Your task to perform on an android device: Search for "usb-c to usb-b" on ebay, select the first entry, and add it to the cart. Image 0: 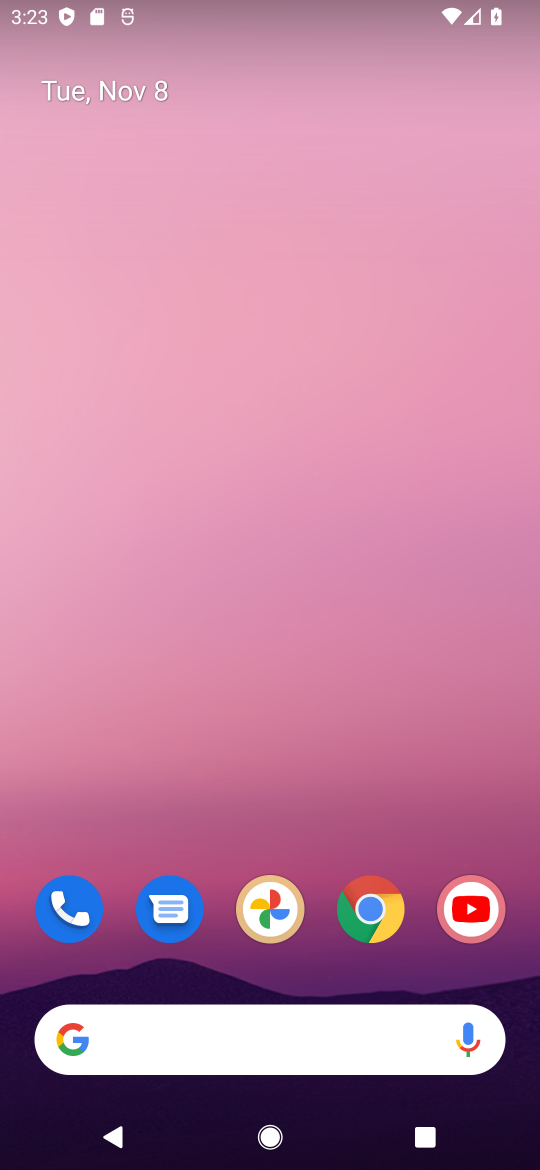
Step 0: click (376, 904)
Your task to perform on an android device: Search for "usb-c to usb-b" on ebay, select the first entry, and add it to the cart. Image 1: 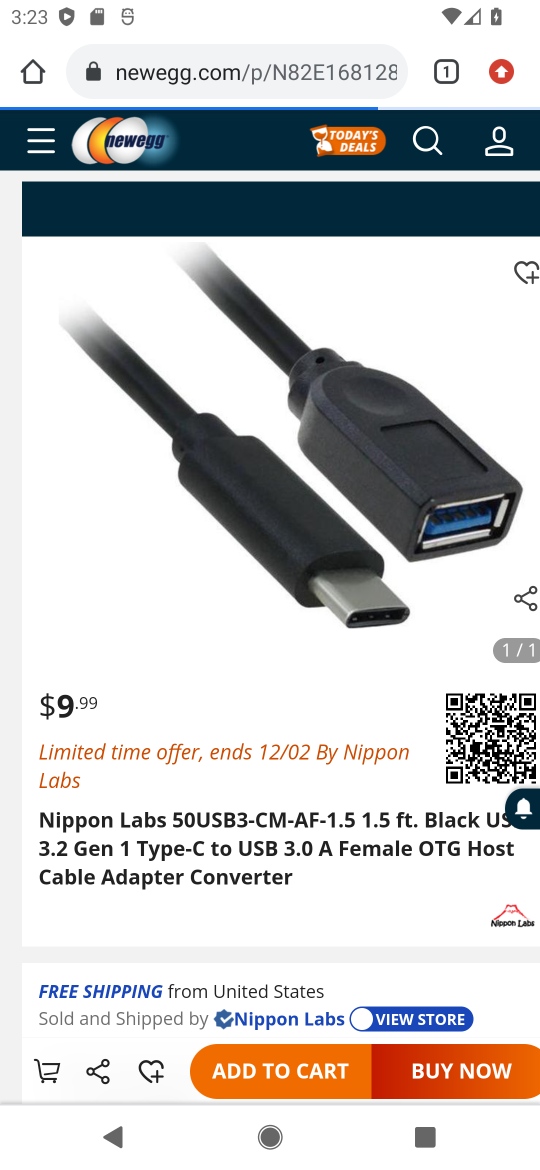
Step 1: click (362, 60)
Your task to perform on an android device: Search for "usb-c to usb-b" on ebay, select the first entry, and add it to the cart. Image 2: 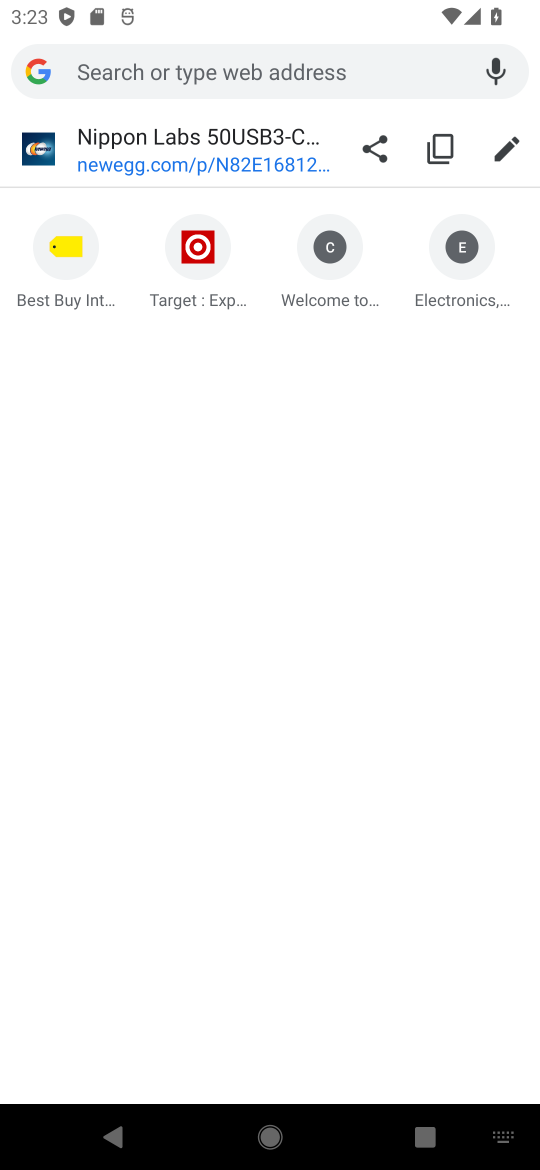
Step 2: type "ebay"
Your task to perform on an android device: Search for "usb-c to usb-b" on ebay, select the first entry, and add it to the cart. Image 3: 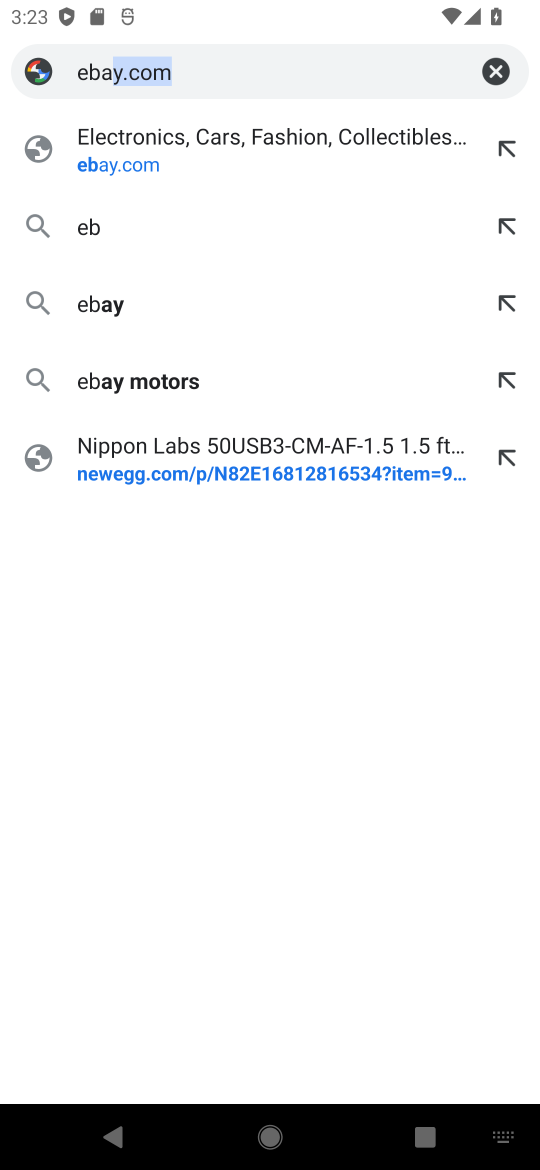
Step 3: press enter
Your task to perform on an android device: Search for "usb-c to usb-b" on ebay, select the first entry, and add it to the cart. Image 4: 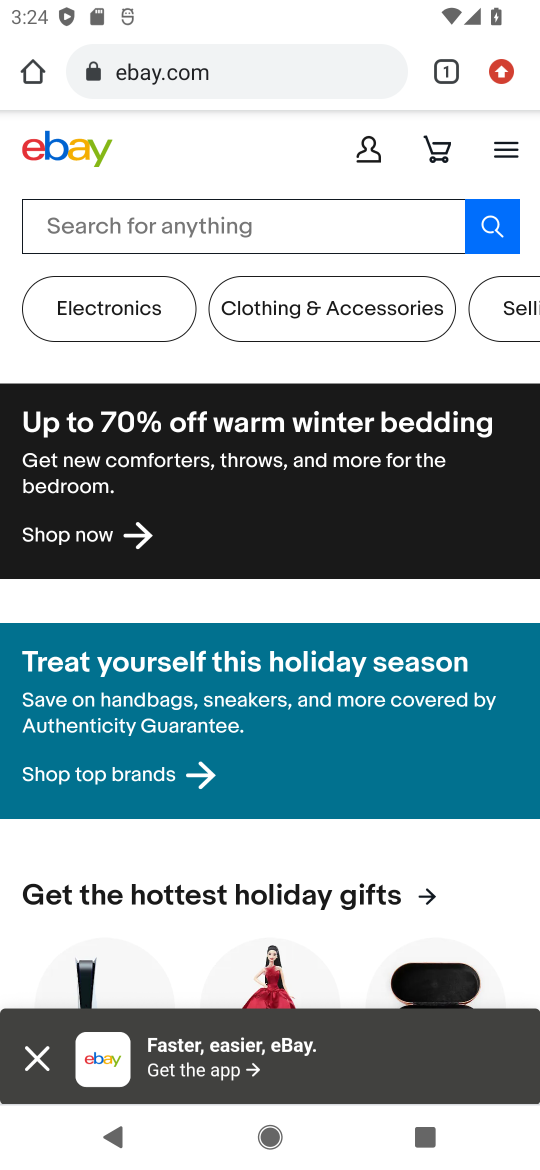
Step 4: click (151, 221)
Your task to perform on an android device: Search for "usb-c to usb-b" on ebay, select the first entry, and add it to the cart. Image 5: 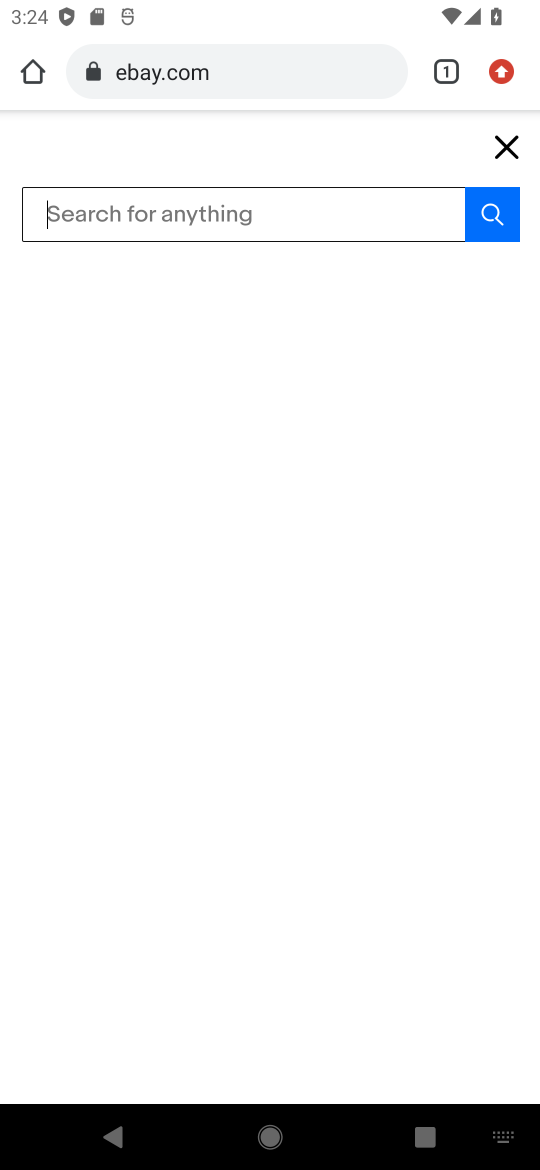
Step 5: type "usb-c to usb-b"
Your task to perform on an android device: Search for "usb-c to usb-b" on ebay, select the first entry, and add it to the cart. Image 6: 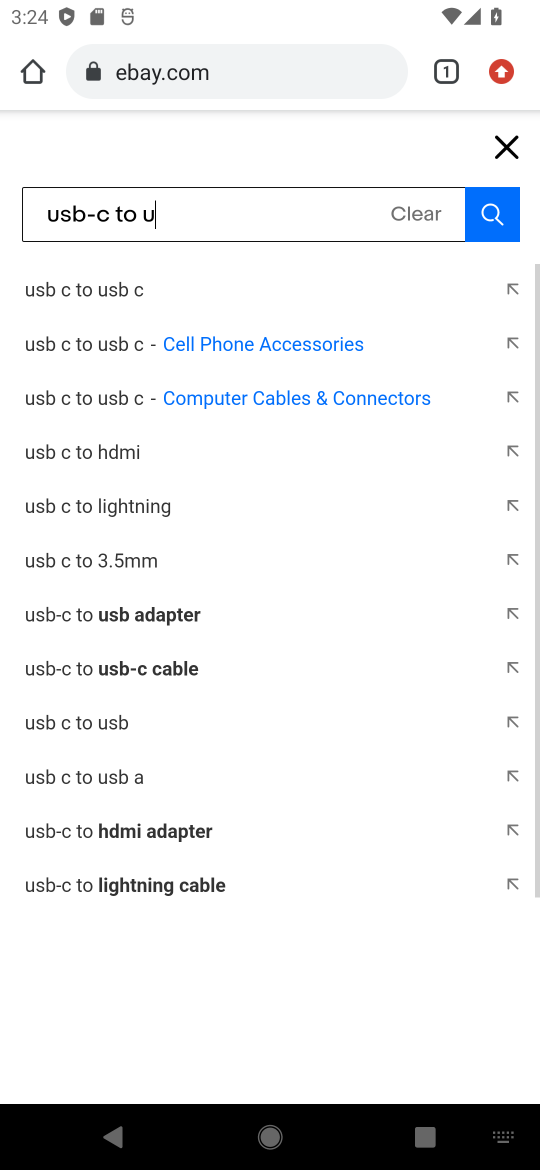
Step 6: press enter
Your task to perform on an android device: Search for "usb-c to usb-b" on ebay, select the first entry, and add it to the cart. Image 7: 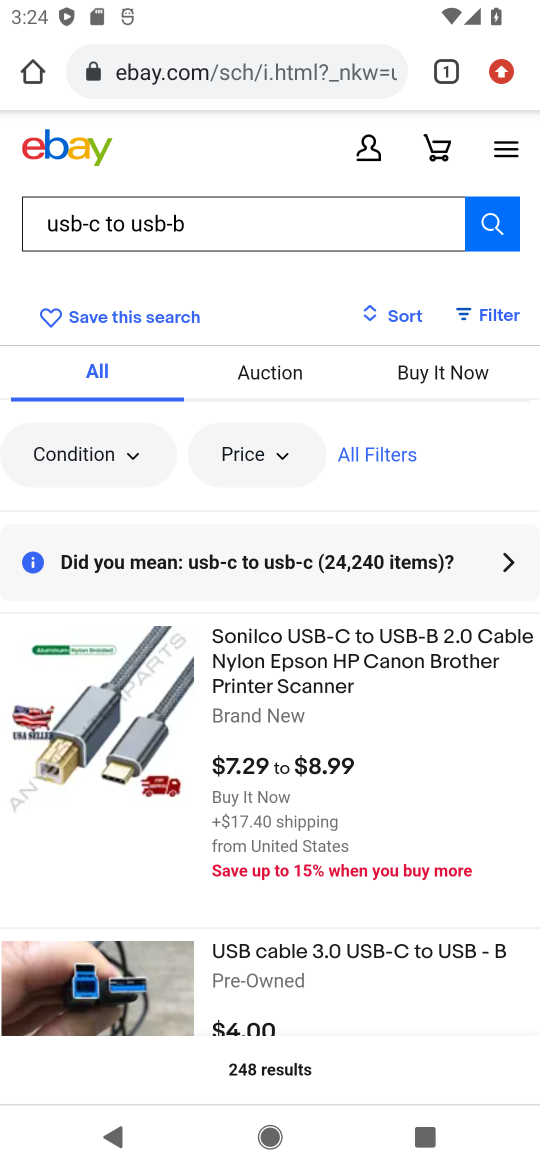
Step 7: click (275, 659)
Your task to perform on an android device: Search for "usb-c to usb-b" on ebay, select the first entry, and add it to the cart. Image 8: 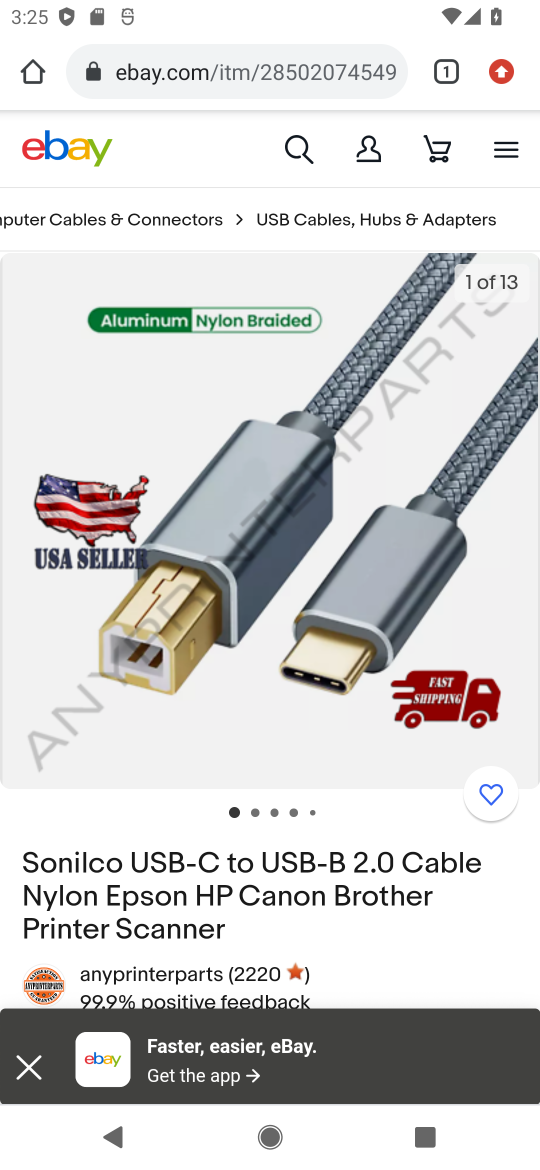
Step 8: drag from (204, 839) to (266, 353)
Your task to perform on an android device: Search for "usb-c to usb-b" on ebay, select the first entry, and add it to the cart. Image 9: 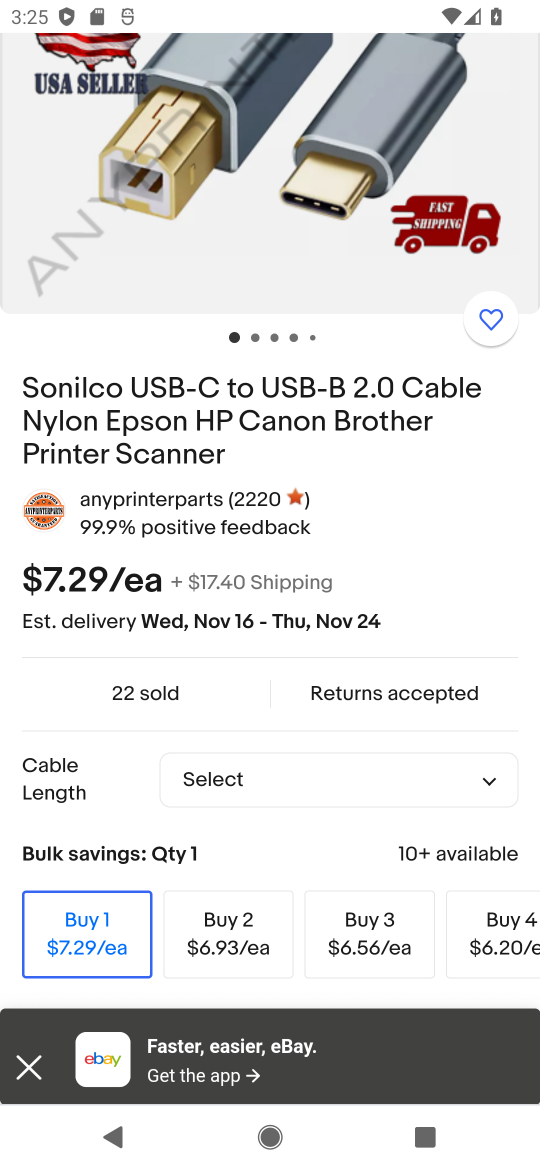
Step 9: drag from (230, 816) to (279, 192)
Your task to perform on an android device: Search for "usb-c to usb-b" on ebay, select the first entry, and add it to the cart. Image 10: 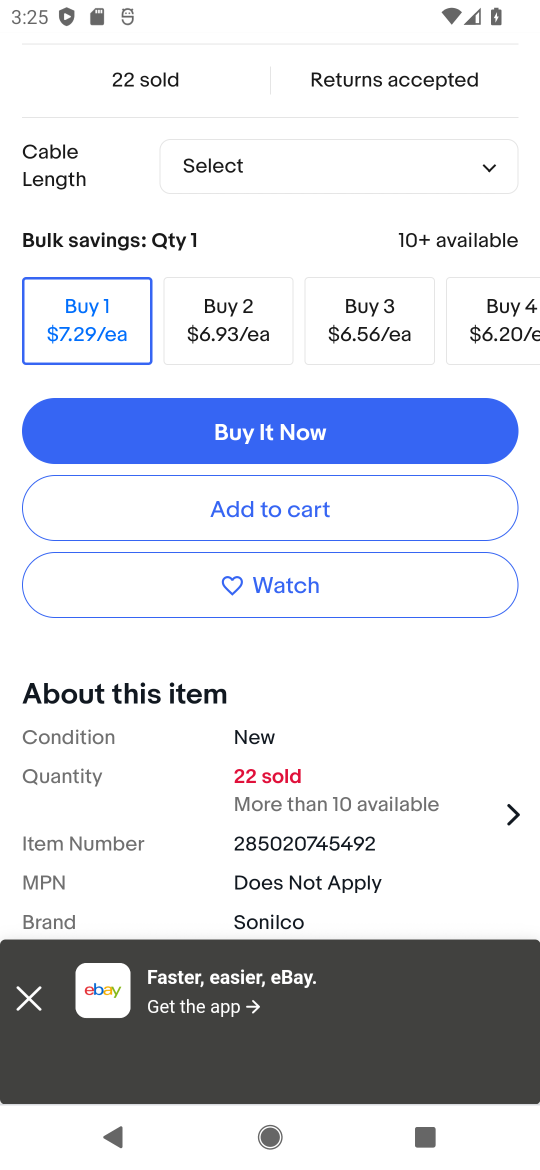
Step 10: click (251, 506)
Your task to perform on an android device: Search for "usb-c to usb-b" on ebay, select the first entry, and add it to the cart. Image 11: 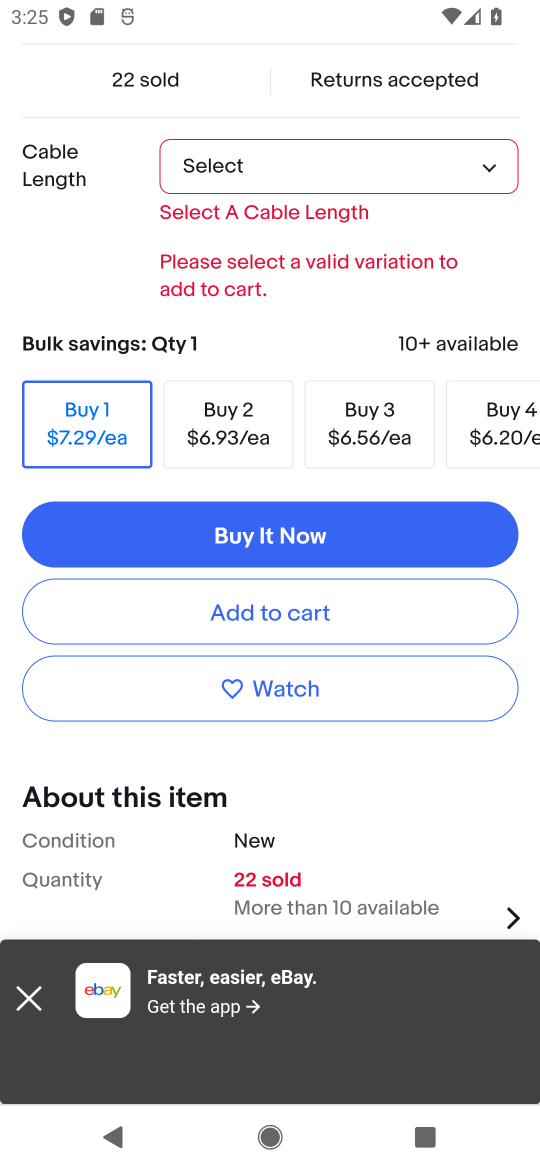
Step 11: click (482, 163)
Your task to perform on an android device: Search for "usb-c to usb-b" on ebay, select the first entry, and add it to the cart. Image 12: 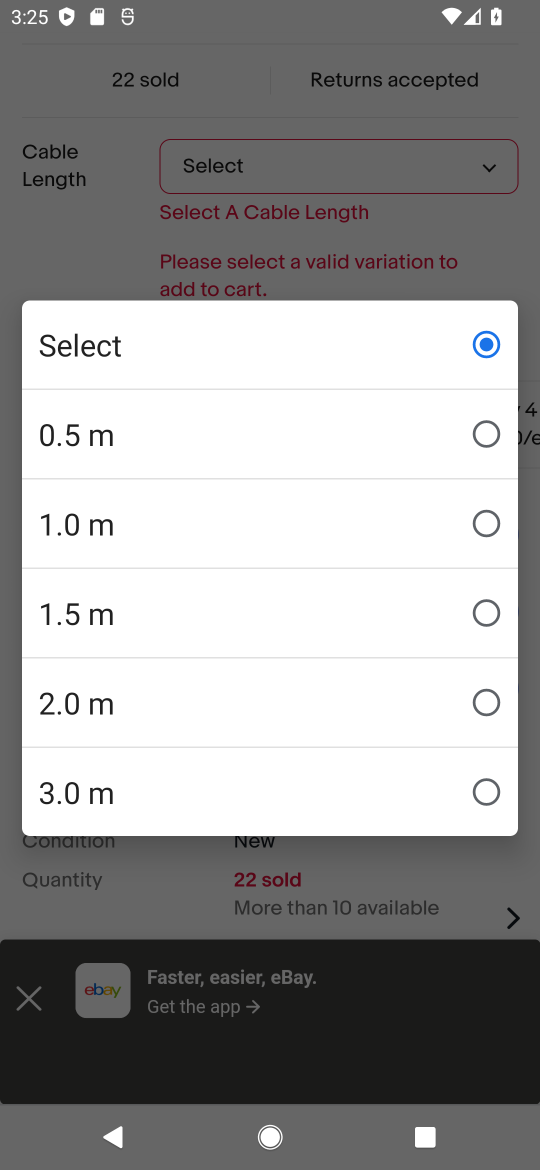
Step 12: click (489, 428)
Your task to perform on an android device: Search for "usb-c to usb-b" on ebay, select the first entry, and add it to the cart. Image 13: 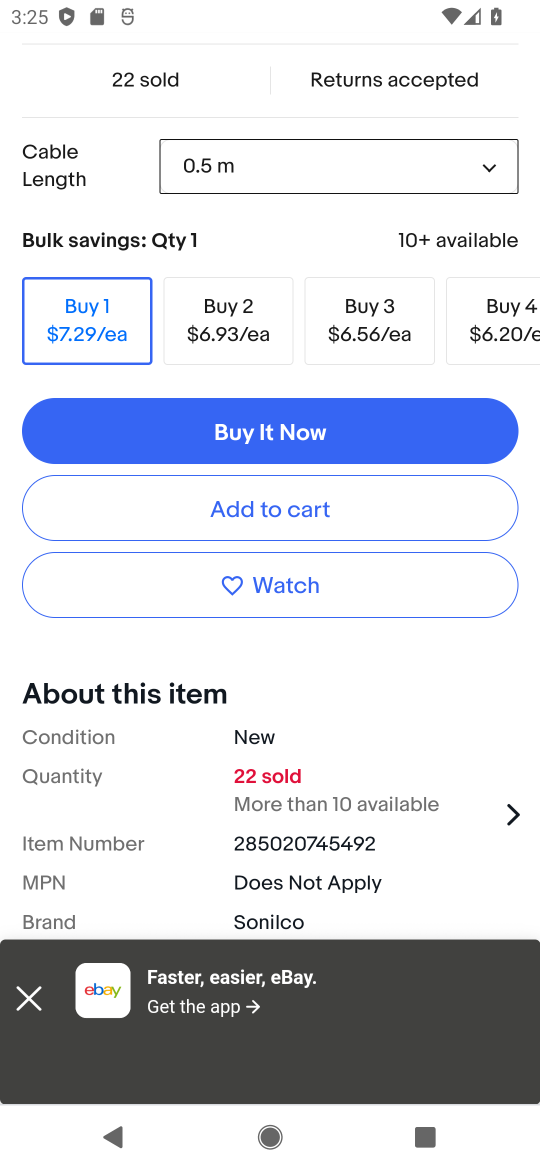
Step 13: click (262, 503)
Your task to perform on an android device: Search for "usb-c to usb-b" on ebay, select the first entry, and add it to the cart. Image 14: 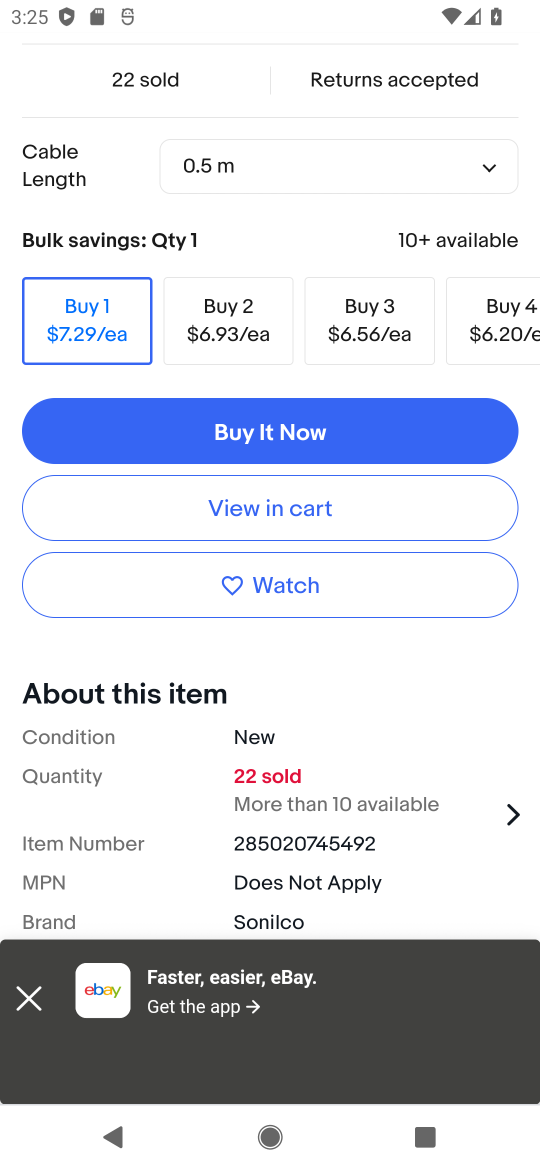
Step 14: drag from (222, 194) to (341, 568)
Your task to perform on an android device: Search for "usb-c to usb-b" on ebay, select the first entry, and add it to the cart. Image 15: 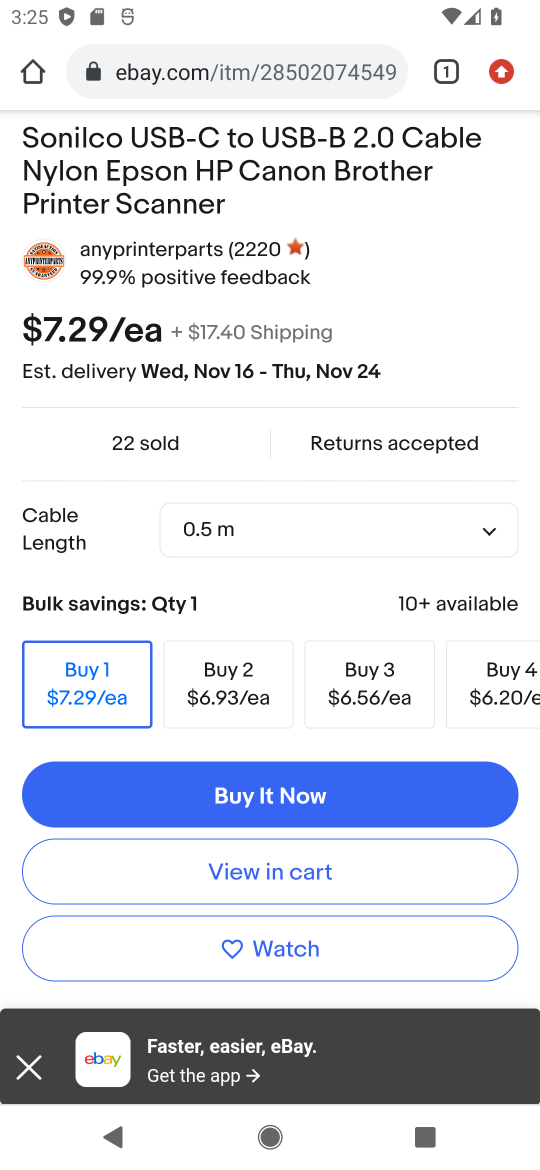
Step 15: click (481, 517)
Your task to perform on an android device: Search for "usb-c to usb-b" on ebay, select the first entry, and add it to the cart. Image 16: 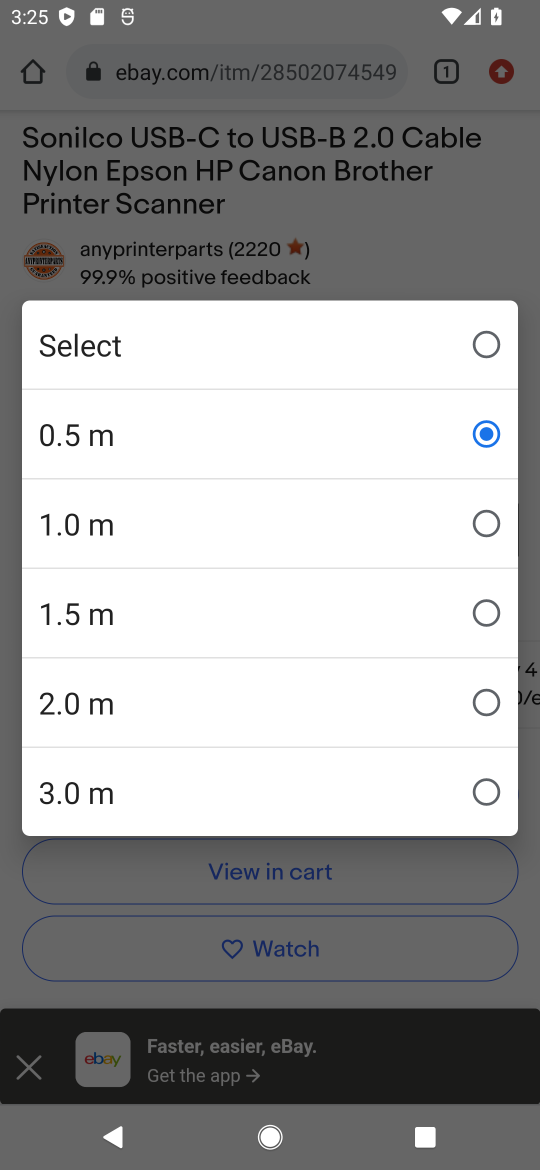
Step 16: click (493, 518)
Your task to perform on an android device: Search for "usb-c to usb-b" on ebay, select the first entry, and add it to the cart. Image 17: 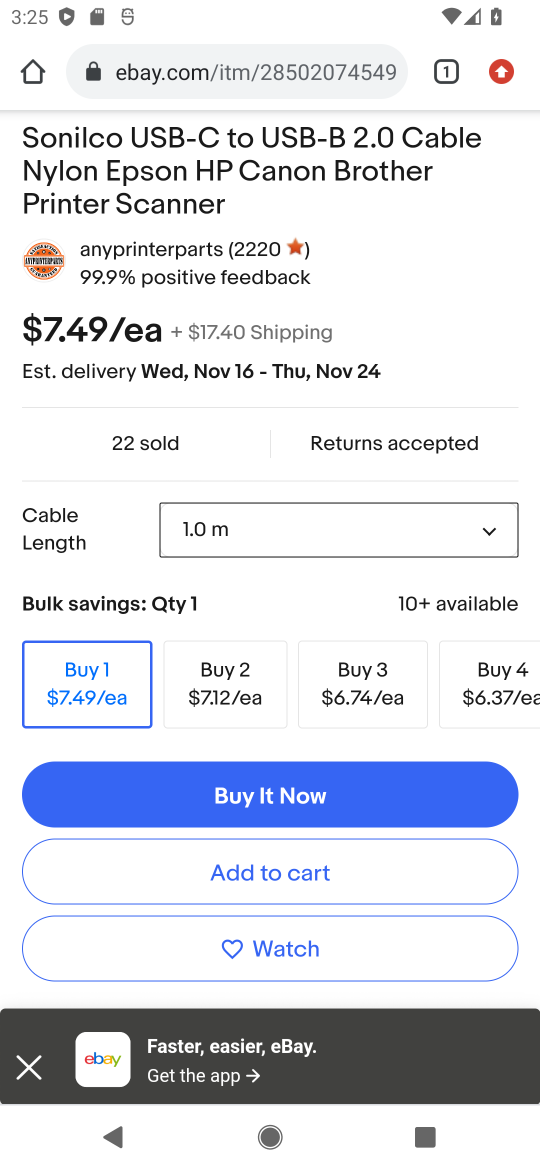
Step 17: drag from (334, 661) to (392, 334)
Your task to perform on an android device: Search for "usb-c to usb-b" on ebay, select the first entry, and add it to the cart. Image 18: 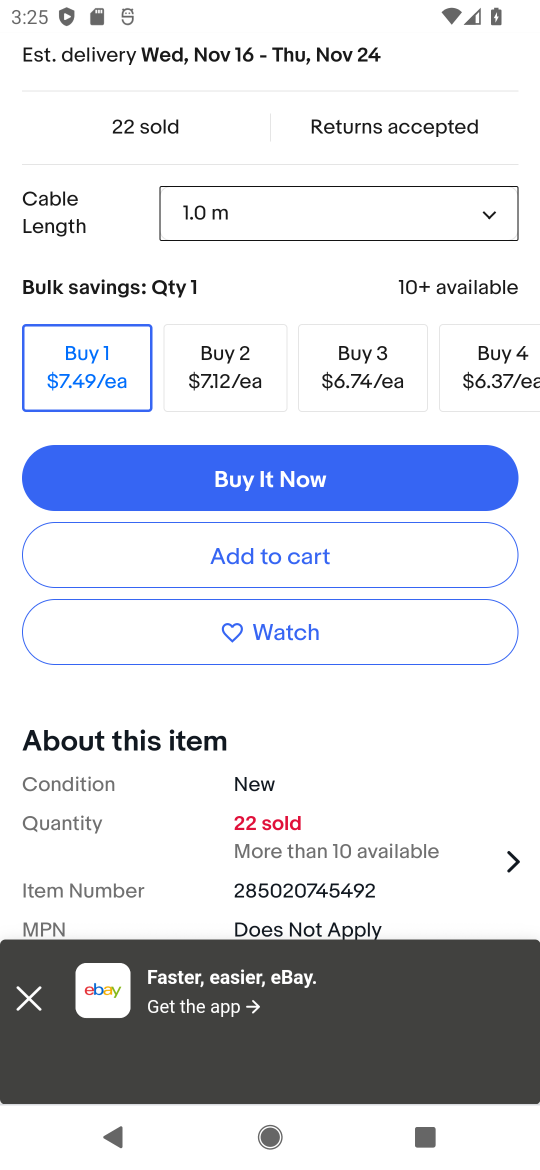
Step 18: click (281, 557)
Your task to perform on an android device: Search for "usb-c to usb-b" on ebay, select the first entry, and add it to the cart. Image 19: 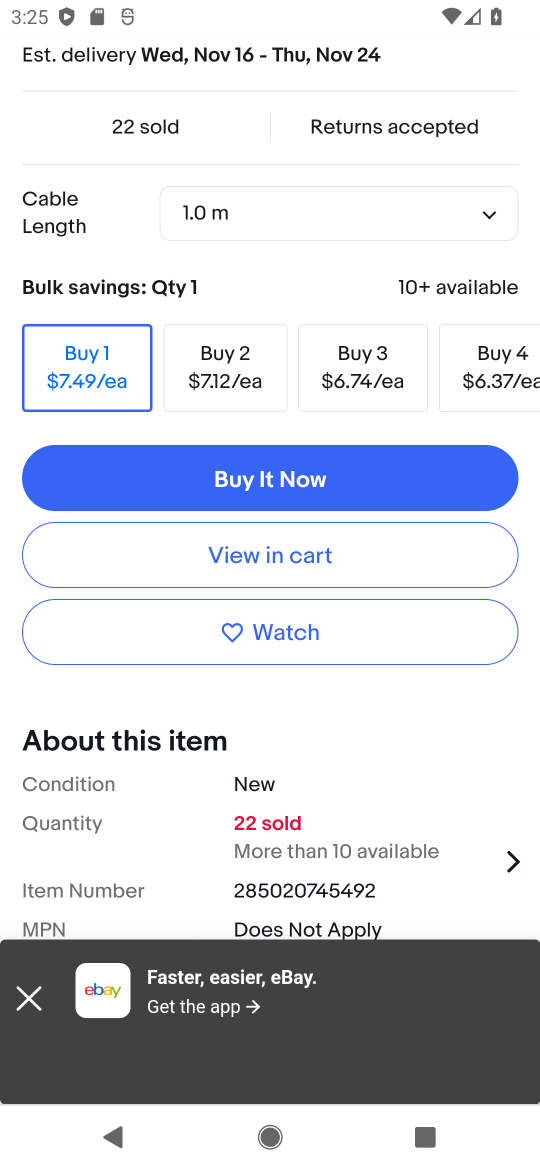
Step 19: drag from (333, 226) to (386, 851)
Your task to perform on an android device: Search for "usb-c to usb-b" on ebay, select the first entry, and add it to the cart. Image 20: 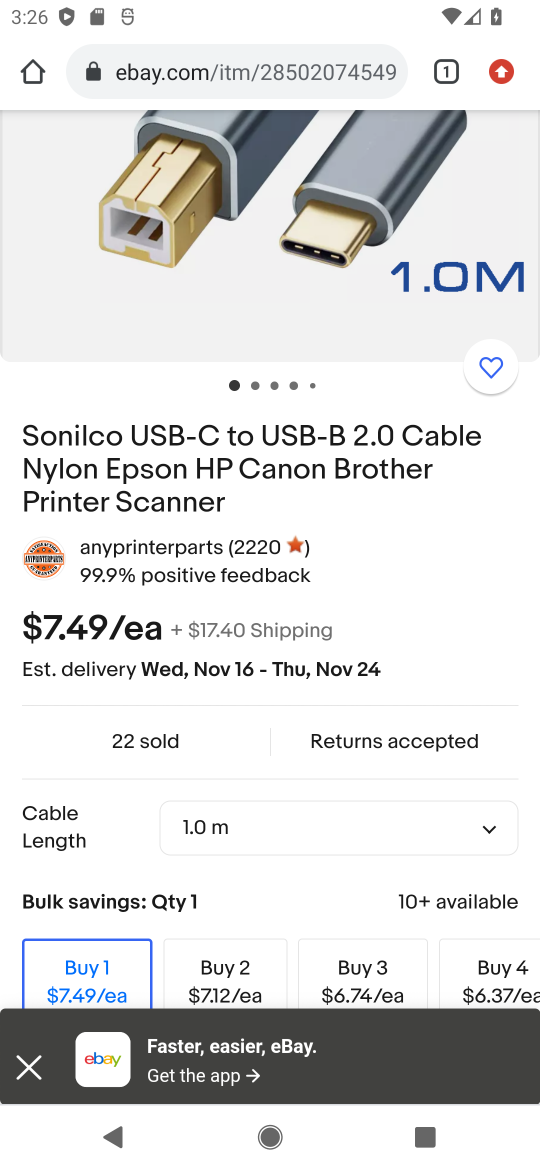
Step 20: drag from (430, 342) to (390, 848)
Your task to perform on an android device: Search for "usb-c to usb-b" on ebay, select the first entry, and add it to the cart. Image 21: 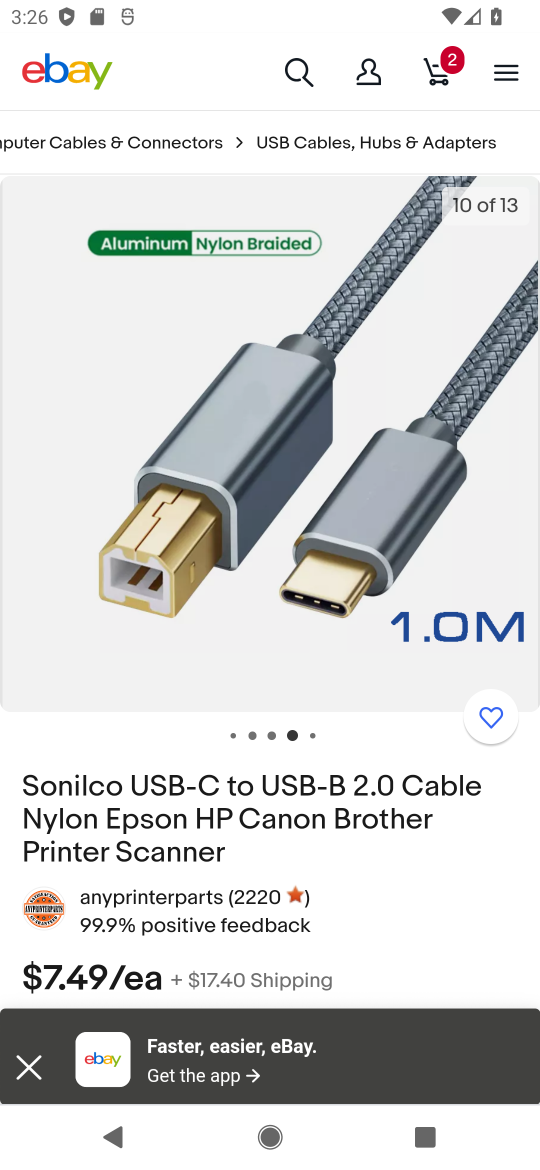
Step 21: click (443, 137)
Your task to perform on an android device: Search for "usb-c to usb-b" on ebay, select the first entry, and add it to the cart. Image 22: 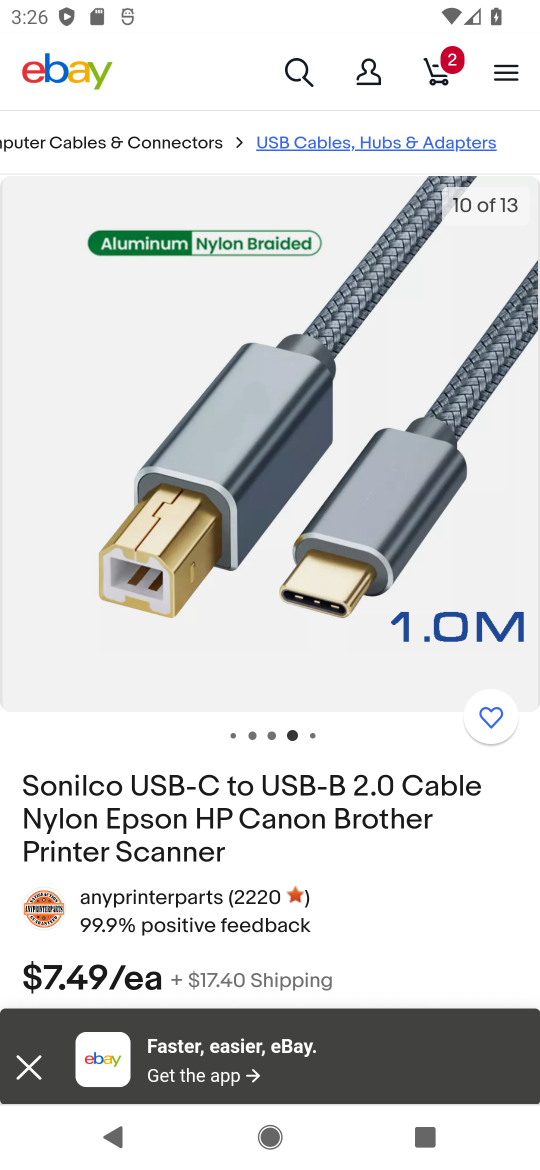
Step 22: click (449, 65)
Your task to perform on an android device: Search for "usb-c to usb-b" on ebay, select the first entry, and add it to the cart. Image 23: 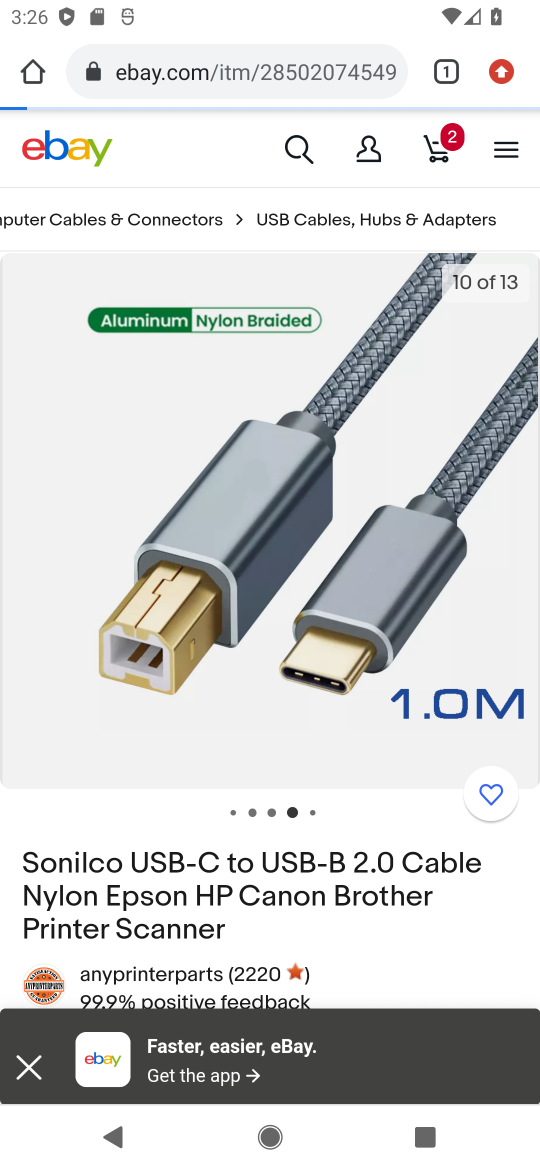
Step 23: click (435, 150)
Your task to perform on an android device: Search for "usb-c to usb-b" on ebay, select the first entry, and add it to the cart. Image 24: 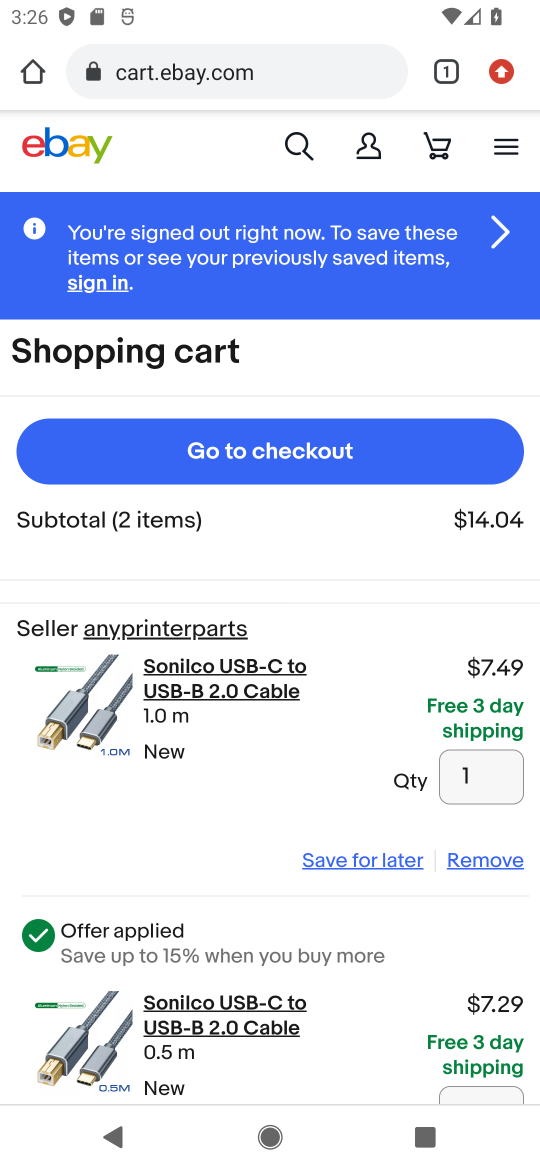
Step 24: click (498, 864)
Your task to perform on an android device: Search for "usb-c to usb-b" on ebay, select the first entry, and add it to the cart. Image 25: 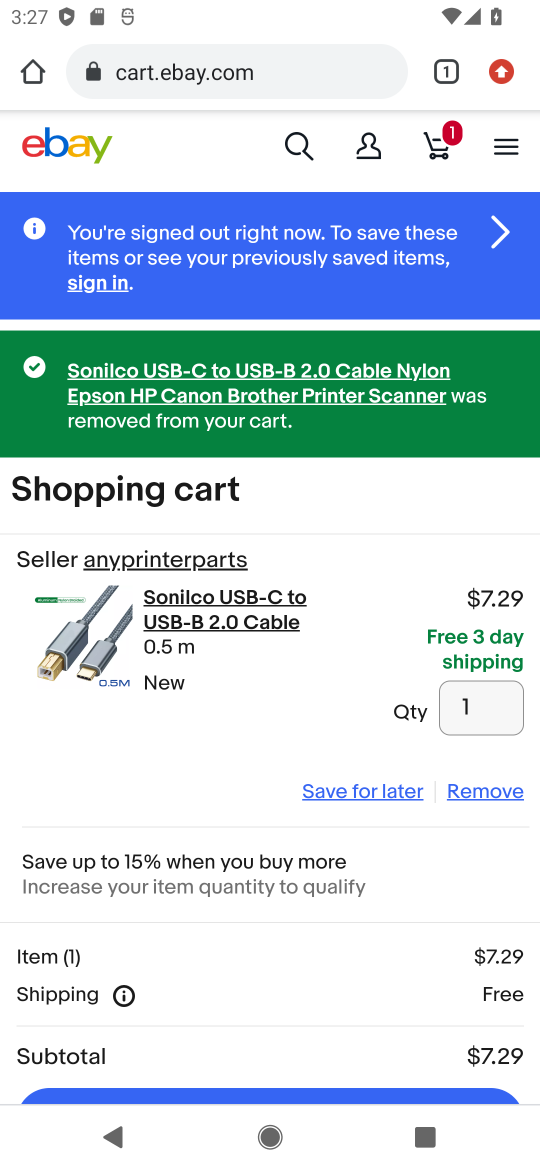
Step 25: task complete